Your task to perform on an android device: move a message to another label in the gmail app Image 0: 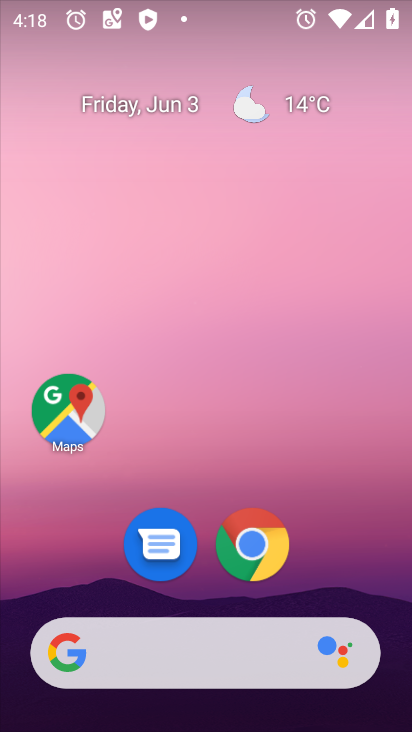
Step 0: drag from (405, 626) to (342, 70)
Your task to perform on an android device: move a message to another label in the gmail app Image 1: 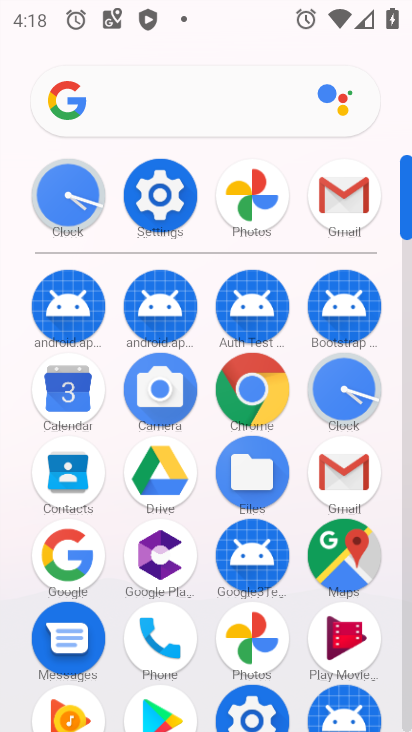
Step 1: click (407, 684)
Your task to perform on an android device: move a message to another label in the gmail app Image 2: 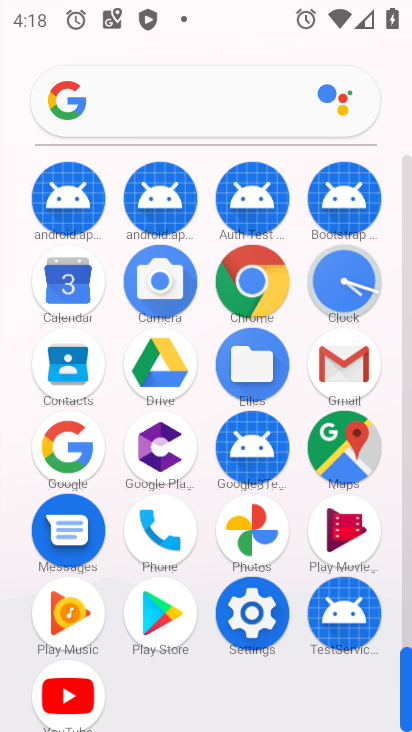
Step 2: click (342, 358)
Your task to perform on an android device: move a message to another label in the gmail app Image 3: 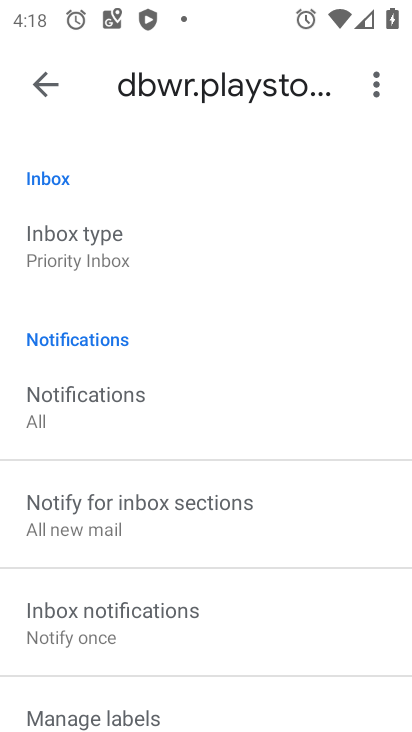
Step 3: drag from (304, 511) to (263, 211)
Your task to perform on an android device: move a message to another label in the gmail app Image 4: 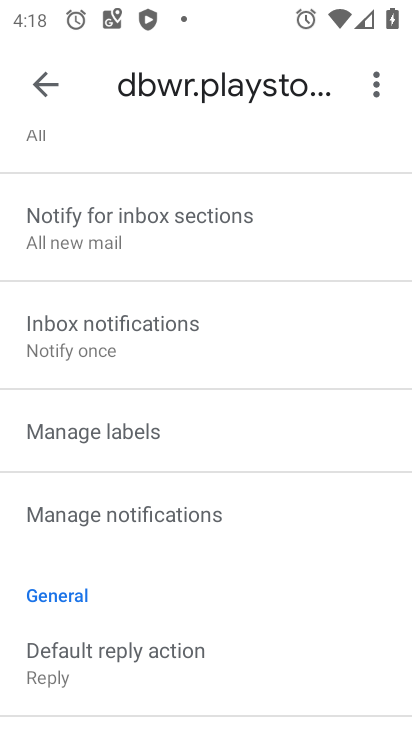
Step 4: press back button
Your task to perform on an android device: move a message to another label in the gmail app Image 5: 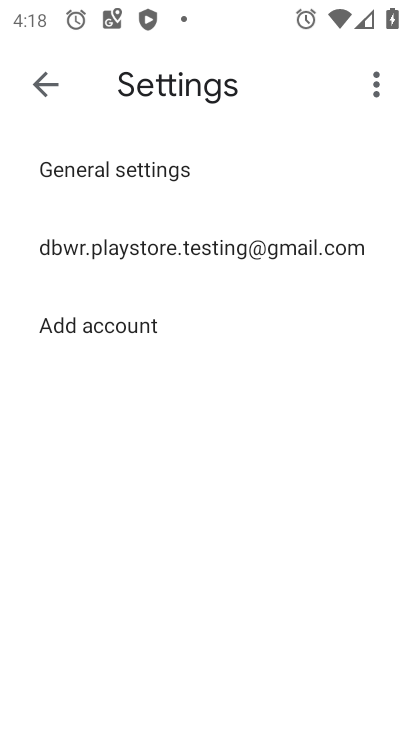
Step 5: press back button
Your task to perform on an android device: move a message to another label in the gmail app Image 6: 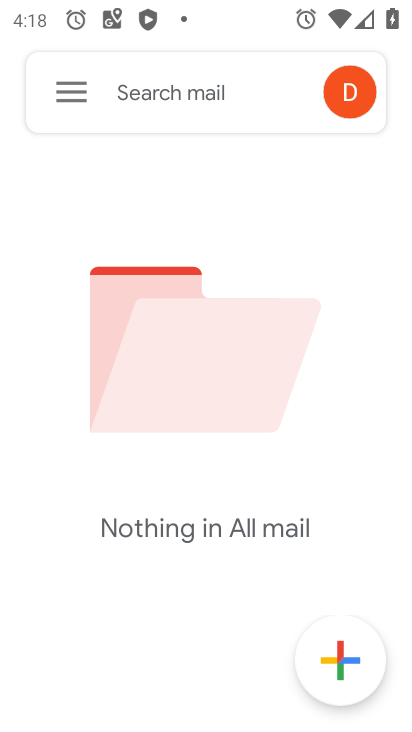
Step 6: click (61, 84)
Your task to perform on an android device: move a message to another label in the gmail app Image 7: 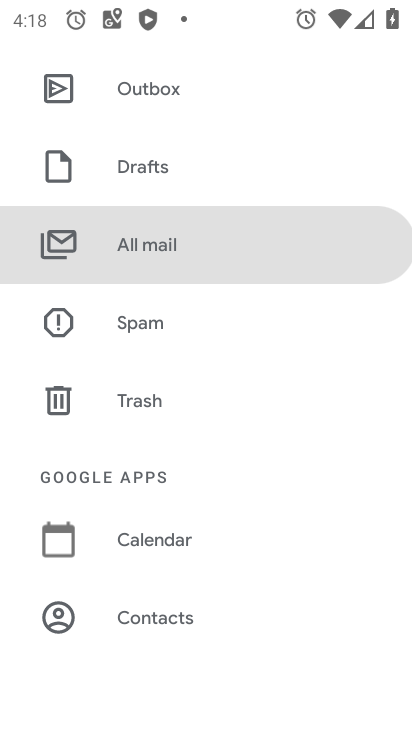
Step 7: click (191, 246)
Your task to perform on an android device: move a message to another label in the gmail app Image 8: 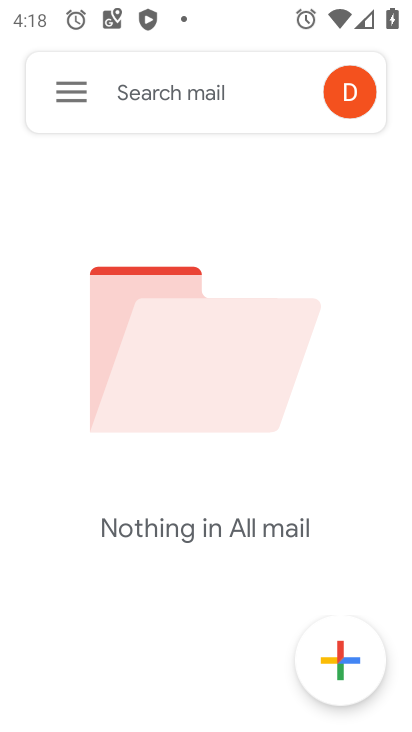
Step 8: task complete